Your task to perform on an android device: Play the last video I watched on Youtube Image 0: 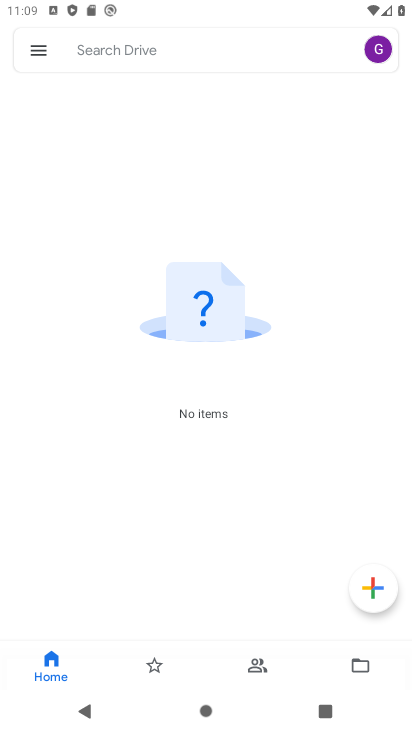
Step 0: press home button
Your task to perform on an android device: Play the last video I watched on Youtube Image 1: 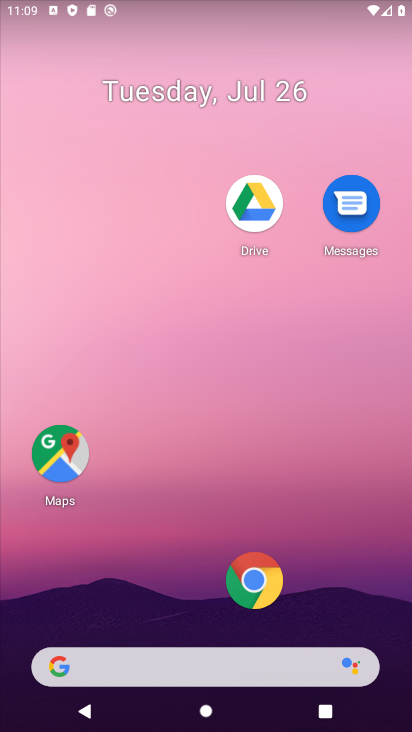
Step 1: drag from (186, 611) to (156, 8)
Your task to perform on an android device: Play the last video I watched on Youtube Image 2: 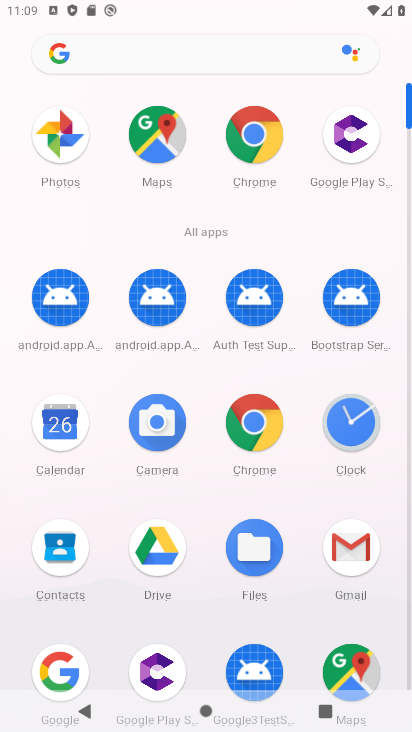
Step 2: drag from (214, 626) to (177, 69)
Your task to perform on an android device: Play the last video I watched on Youtube Image 3: 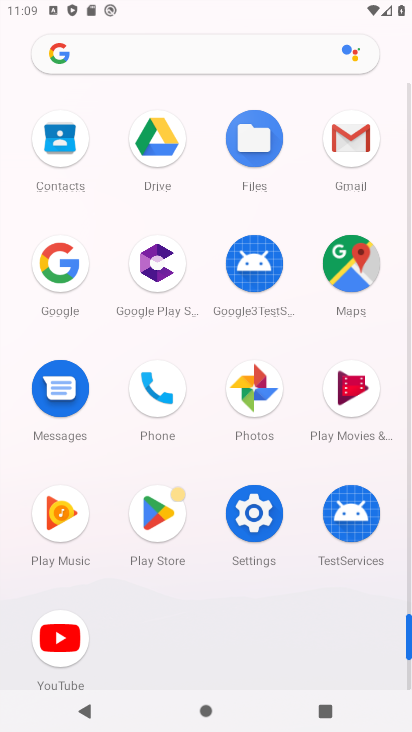
Step 3: click (57, 628)
Your task to perform on an android device: Play the last video I watched on Youtube Image 4: 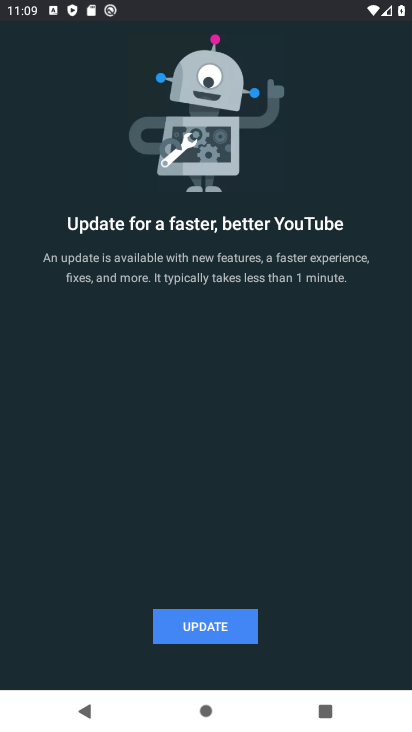
Step 4: click (208, 616)
Your task to perform on an android device: Play the last video I watched on Youtube Image 5: 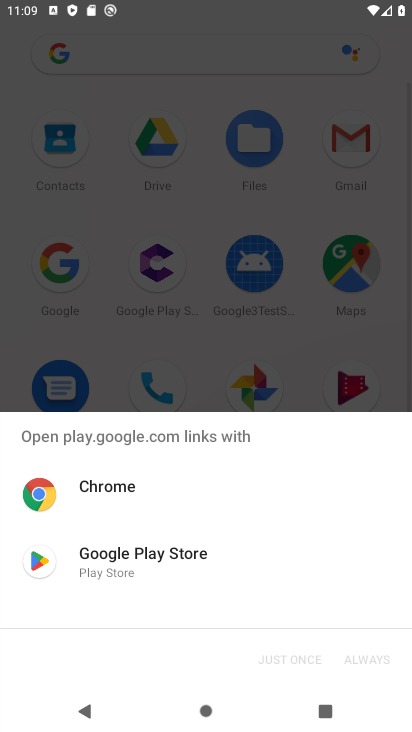
Step 5: click (117, 556)
Your task to perform on an android device: Play the last video I watched on Youtube Image 6: 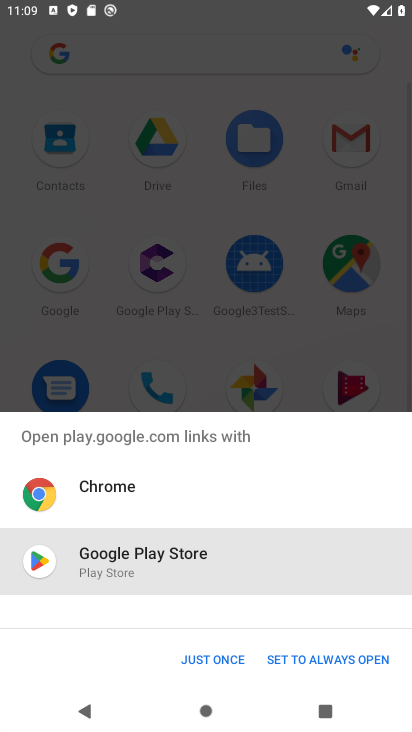
Step 6: click (194, 656)
Your task to perform on an android device: Play the last video I watched on Youtube Image 7: 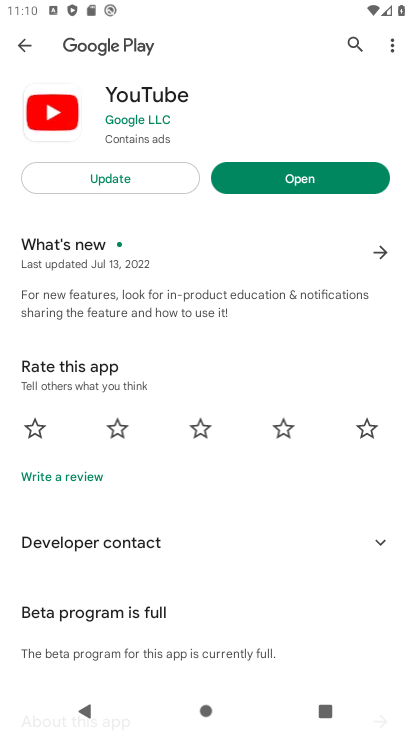
Step 7: click (93, 187)
Your task to perform on an android device: Play the last video I watched on Youtube Image 8: 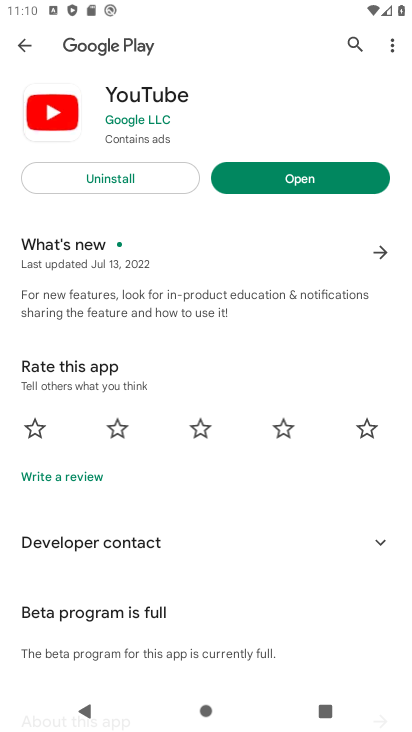
Step 8: click (282, 188)
Your task to perform on an android device: Play the last video I watched on Youtube Image 9: 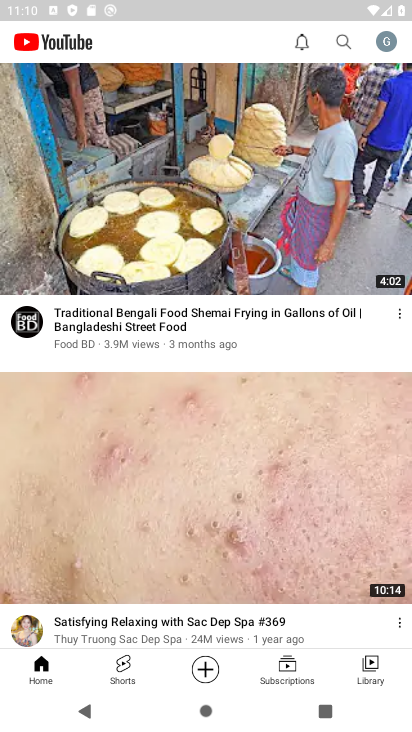
Step 9: click (364, 677)
Your task to perform on an android device: Play the last video I watched on Youtube Image 10: 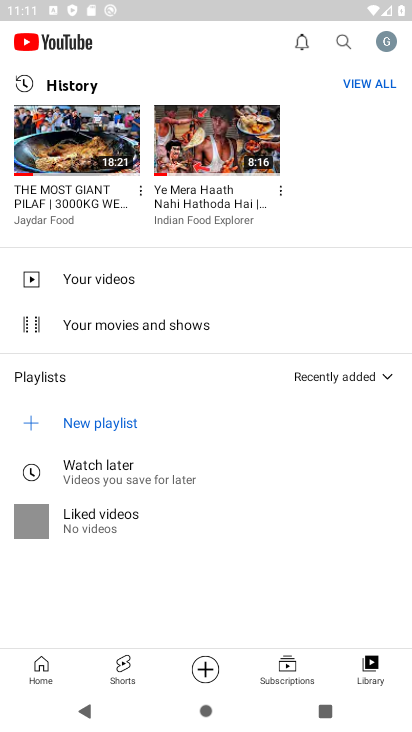
Step 10: click (107, 129)
Your task to perform on an android device: Play the last video I watched on Youtube Image 11: 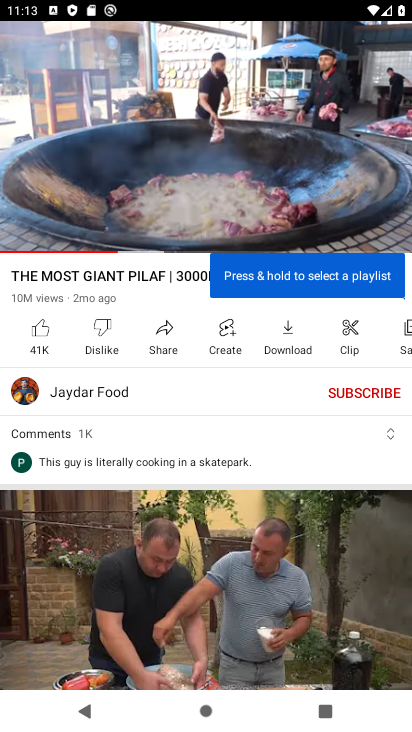
Step 11: task complete